Your task to perform on an android device: Go to battery settings Image 0: 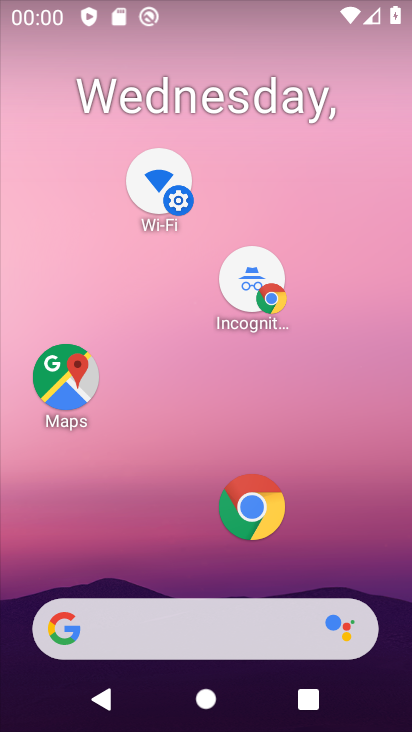
Step 0: drag from (57, 482) to (183, 236)
Your task to perform on an android device: Go to battery settings Image 1: 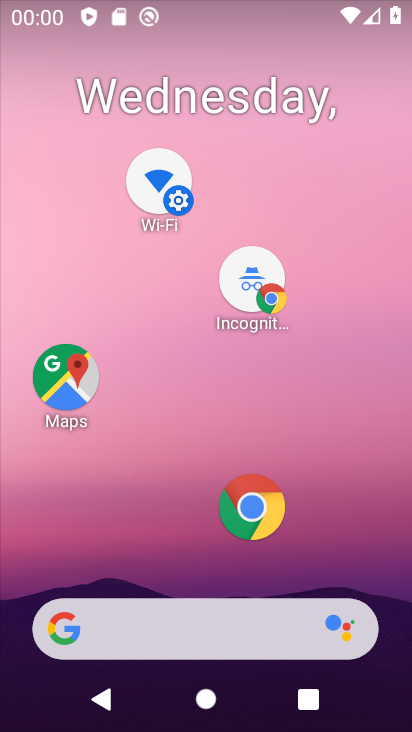
Step 1: drag from (127, 393) to (198, 238)
Your task to perform on an android device: Go to battery settings Image 2: 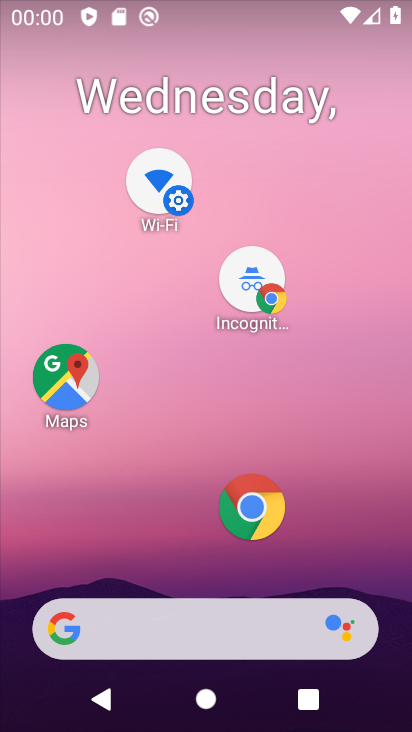
Step 2: drag from (61, 499) to (163, 252)
Your task to perform on an android device: Go to battery settings Image 3: 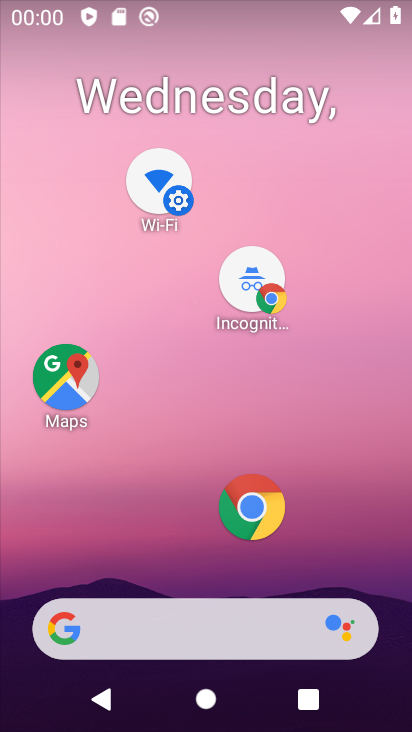
Step 3: drag from (52, 585) to (210, 231)
Your task to perform on an android device: Go to battery settings Image 4: 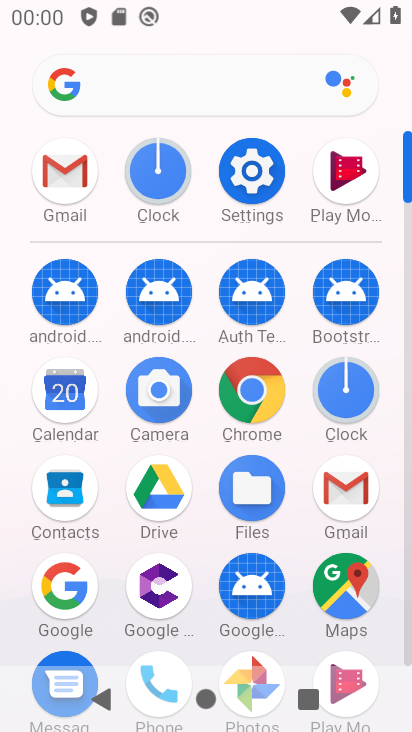
Step 4: click (243, 156)
Your task to perform on an android device: Go to battery settings Image 5: 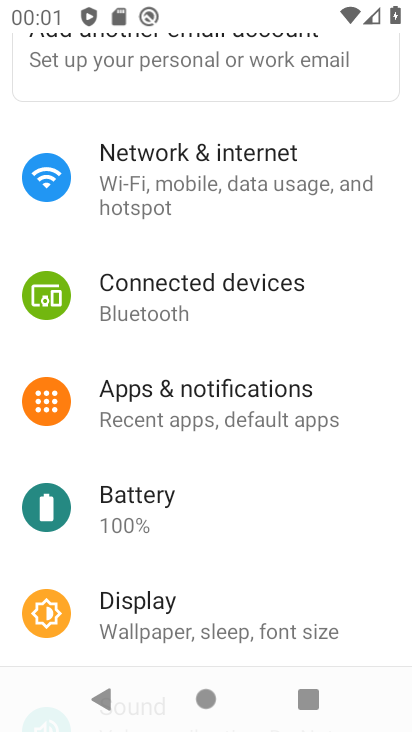
Step 5: click (132, 513)
Your task to perform on an android device: Go to battery settings Image 6: 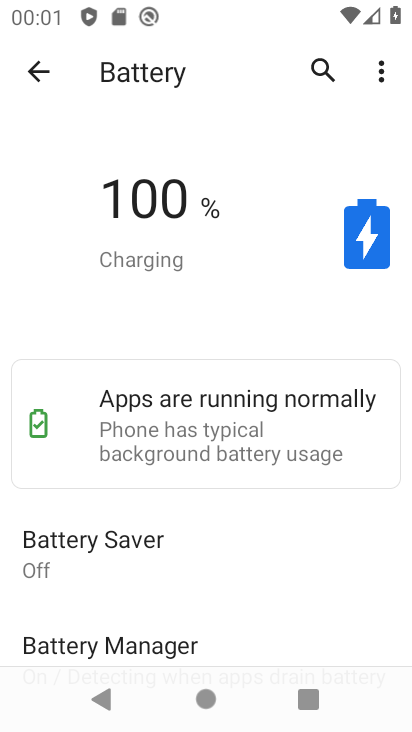
Step 6: task complete